Your task to perform on an android device: Go to Yahoo.com Image 0: 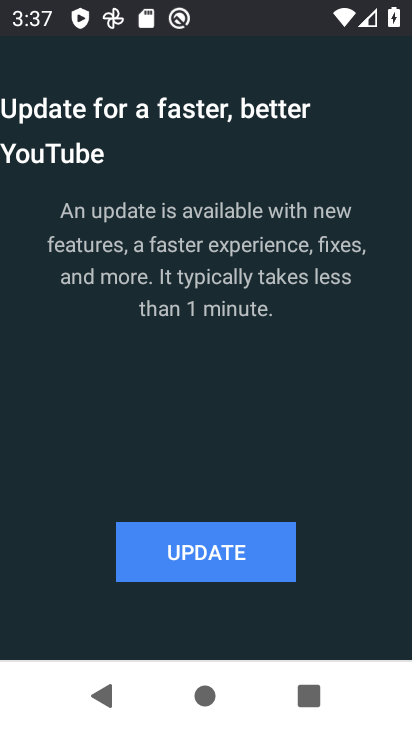
Step 0: press home button
Your task to perform on an android device: Go to Yahoo.com Image 1: 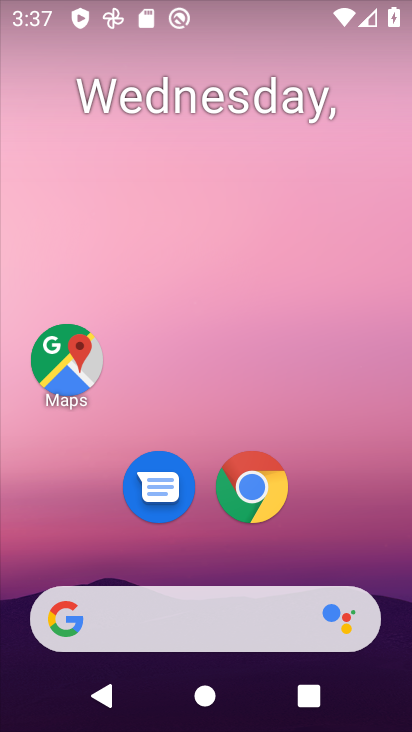
Step 1: drag from (374, 542) to (374, 359)
Your task to perform on an android device: Go to Yahoo.com Image 2: 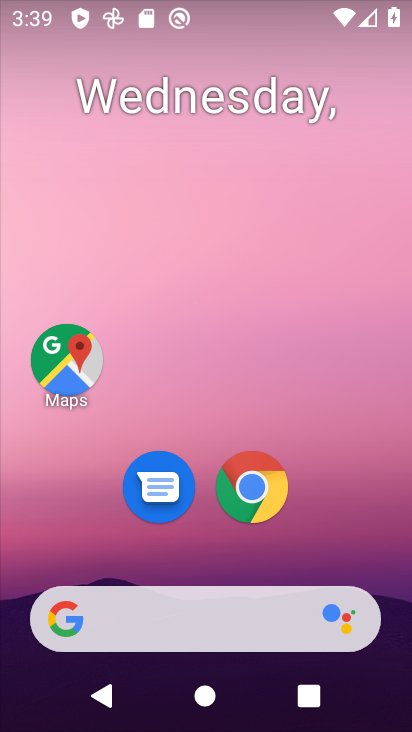
Step 2: drag from (357, 537) to (372, 140)
Your task to perform on an android device: Go to Yahoo.com Image 3: 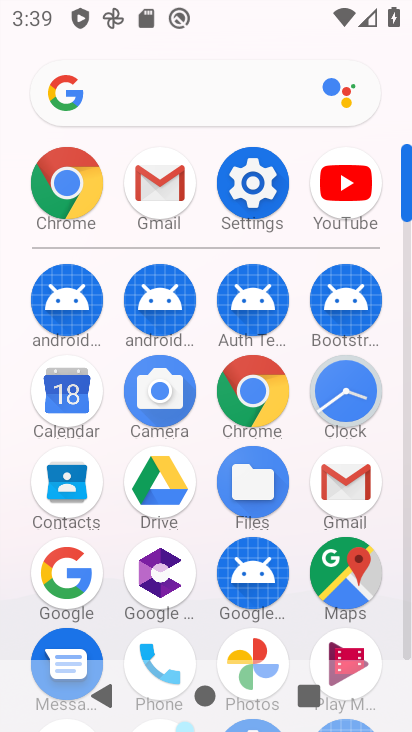
Step 3: click (280, 399)
Your task to perform on an android device: Go to Yahoo.com Image 4: 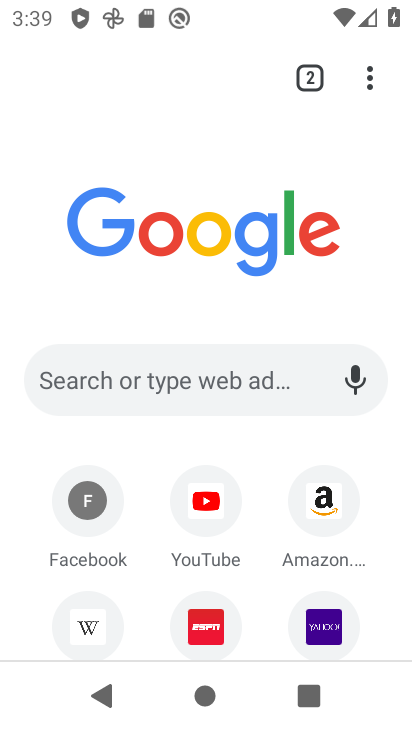
Step 4: drag from (387, 589) to (388, 439)
Your task to perform on an android device: Go to Yahoo.com Image 5: 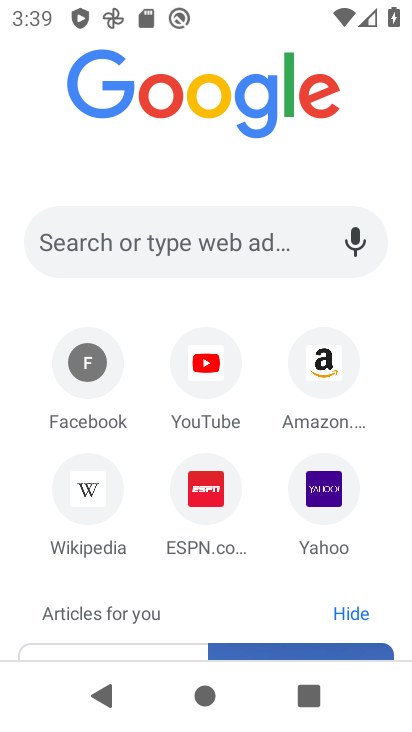
Step 5: click (333, 497)
Your task to perform on an android device: Go to Yahoo.com Image 6: 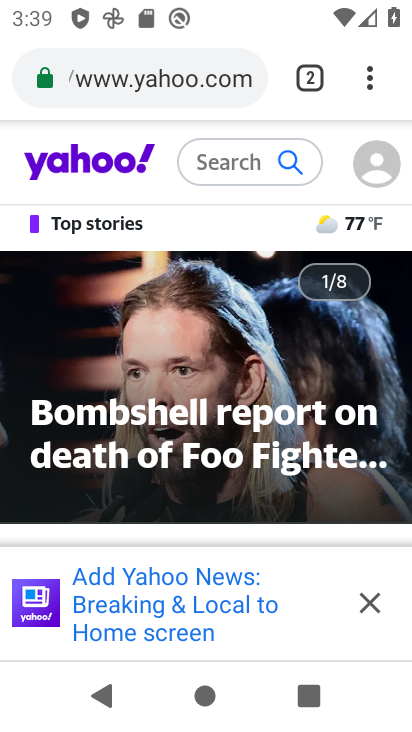
Step 6: task complete